Your task to perform on an android device: turn on airplane mode Image 0: 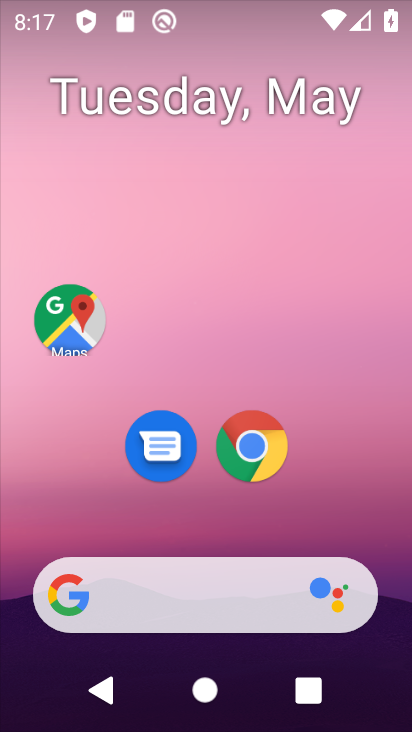
Step 0: drag from (382, 571) to (379, 252)
Your task to perform on an android device: turn on airplane mode Image 1: 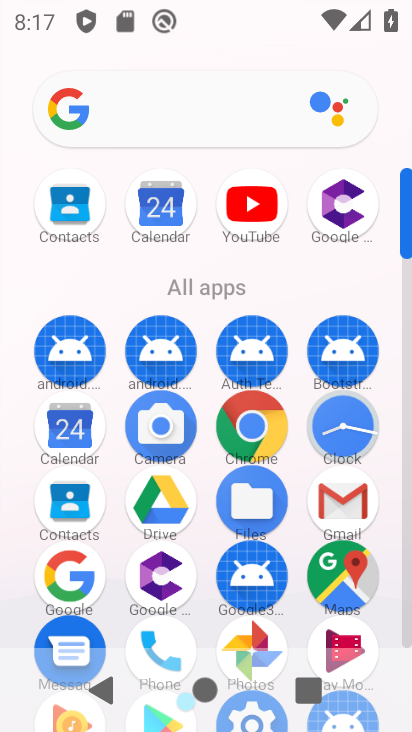
Step 1: drag from (392, 657) to (394, 528)
Your task to perform on an android device: turn on airplane mode Image 2: 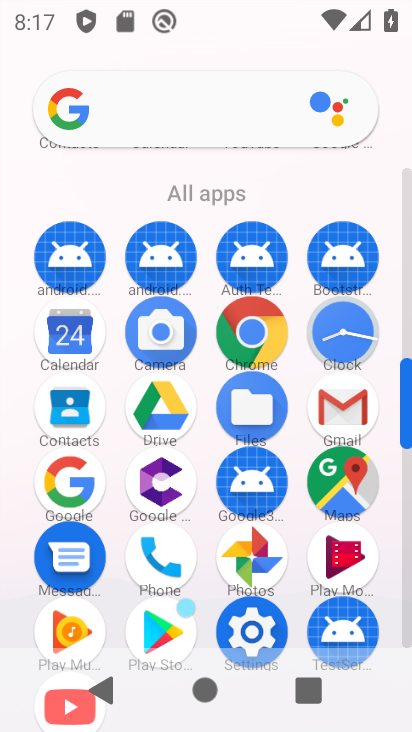
Step 2: drag from (393, 619) to (390, 456)
Your task to perform on an android device: turn on airplane mode Image 3: 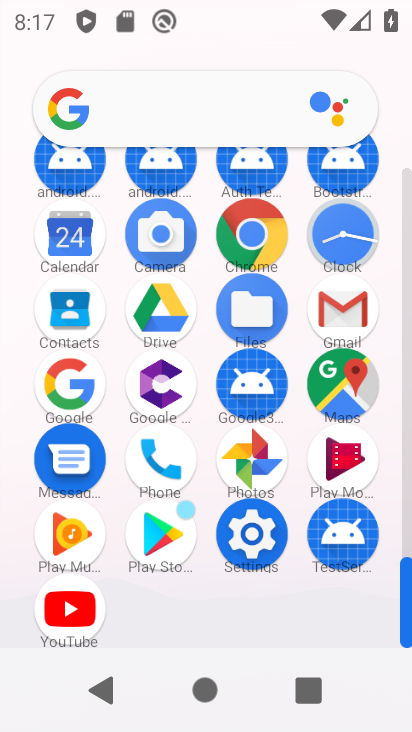
Step 3: click (261, 542)
Your task to perform on an android device: turn on airplane mode Image 4: 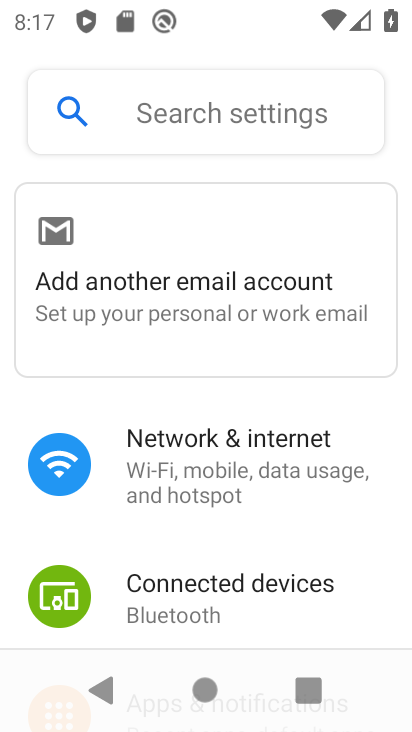
Step 4: click (317, 478)
Your task to perform on an android device: turn on airplane mode Image 5: 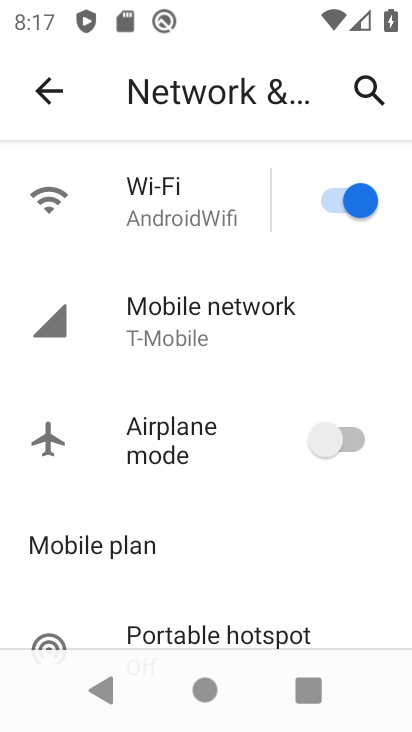
Step 5: click (327, 446)
Your task to perform on an android device: turn on airplane mode Image 6: 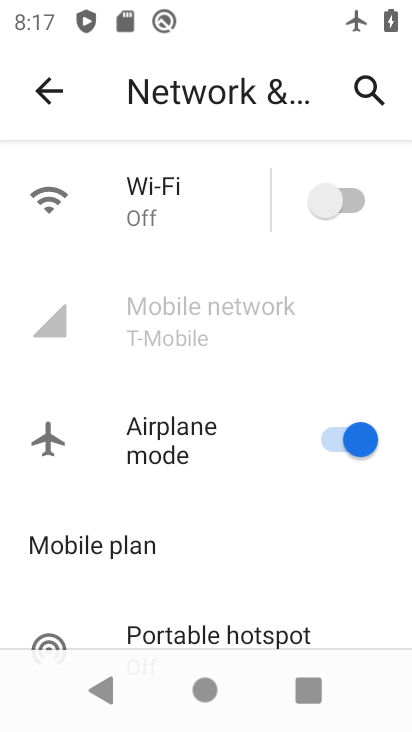
Step 6: task complete